Your task to perform on an android device: see creations saved in the google photos Image 0: 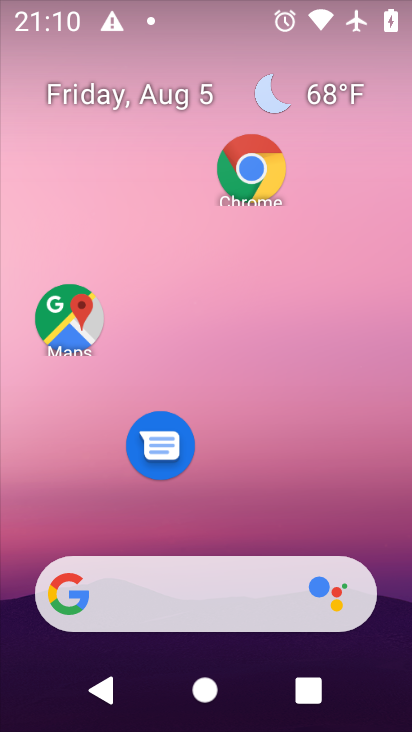
Step 0: drag from (209, 530) to (198, 144)
Your task to perform on an android device: see creations saved in the google photos Image 1: 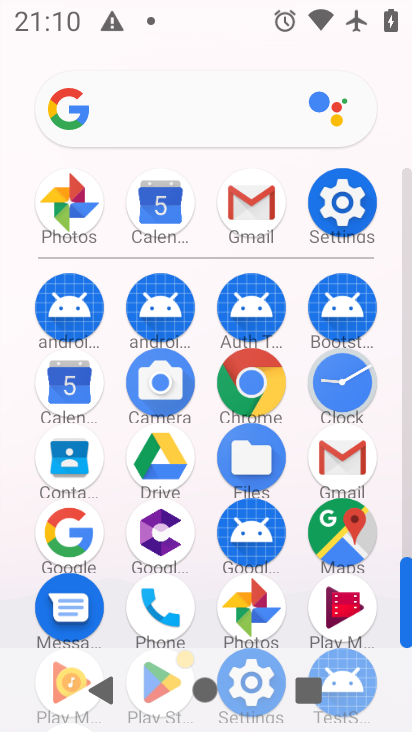
Step 1: click (80, 208)
Your task to perform on an android device: see creations saved in the google photos Image 2: 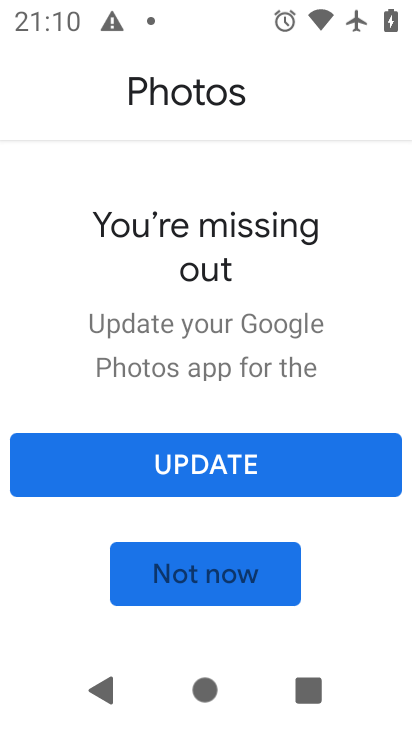
Step 2: click (216, 589)
Your task to perform on an android device: see creations saved in the google photos Image 3: 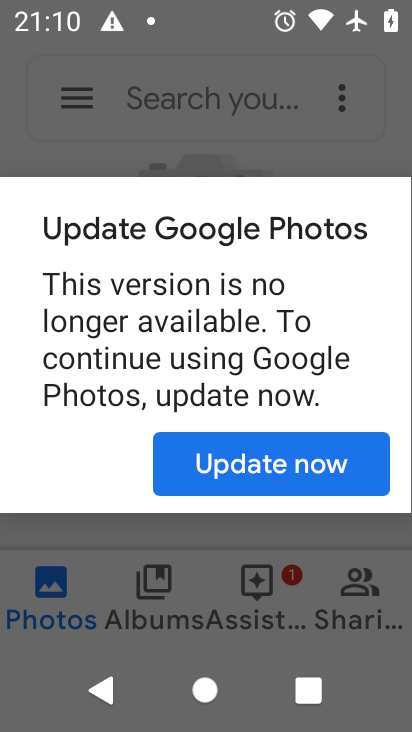
Step 3: click (284, 466)
Your task to perform on an android device: see creations saved in the google photos Image 4: 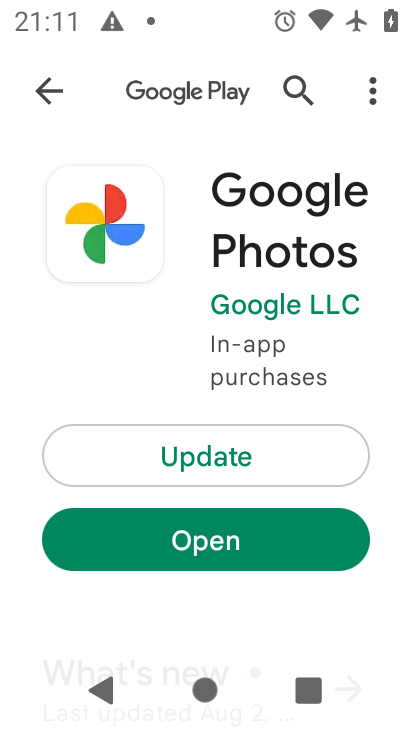
Step 4: click (240, 549)
Your task to perform on an android device: see creations saved in the google photos Image 5: 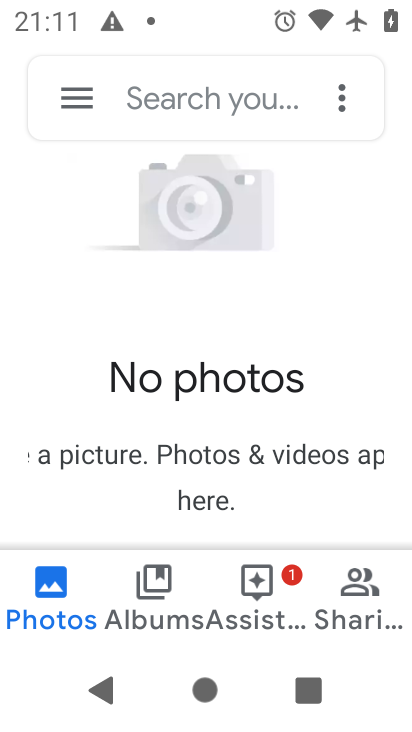
Step 5: click (188, 95)
Your task to perform on an android device: see creations saved in the google photos Image 6: 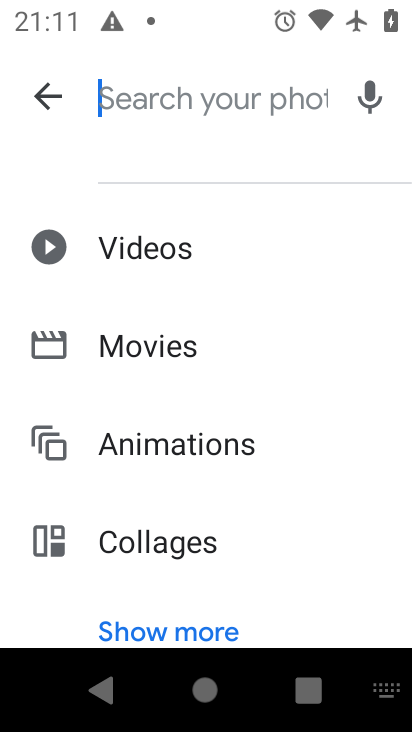
Step 6: click (206, 621)
Your task to perform on an android device: see creations saved in the google photos Image 7: 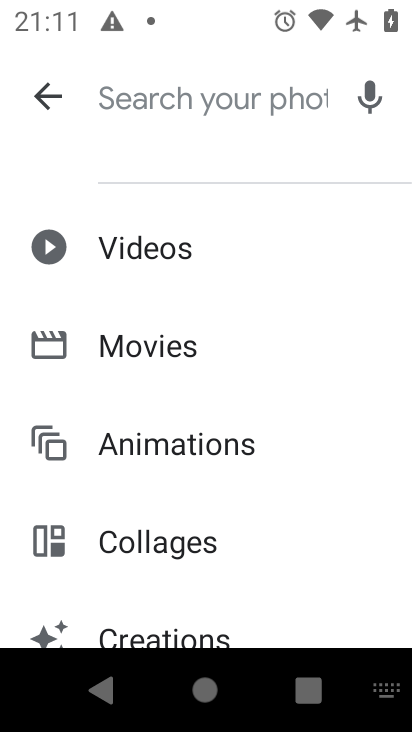
Step 7: drag from (256, 567) to (284, 168)
Your task to perform on an android device: see creations saved in the google photos Image 8: 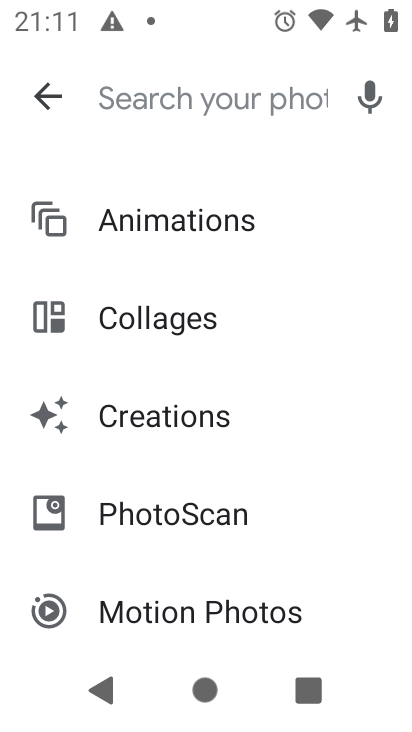
Step 8: click (186, 408)
Your task to perform on an android device: see creations saved in the google photos Image 9: 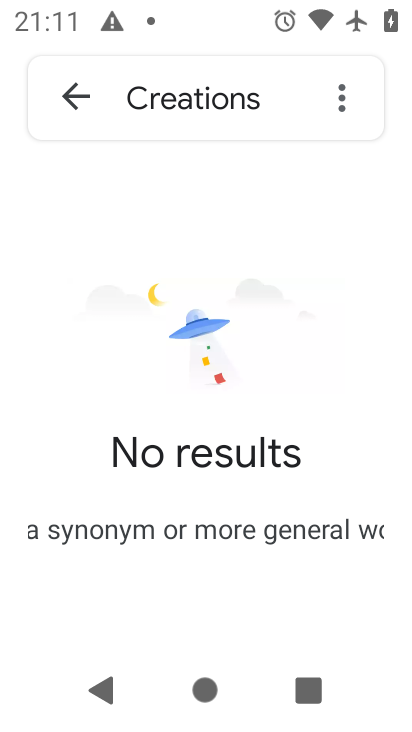
Step 9: task complete